Your task to perform on an android device: create a new album in the google photos Image 0: 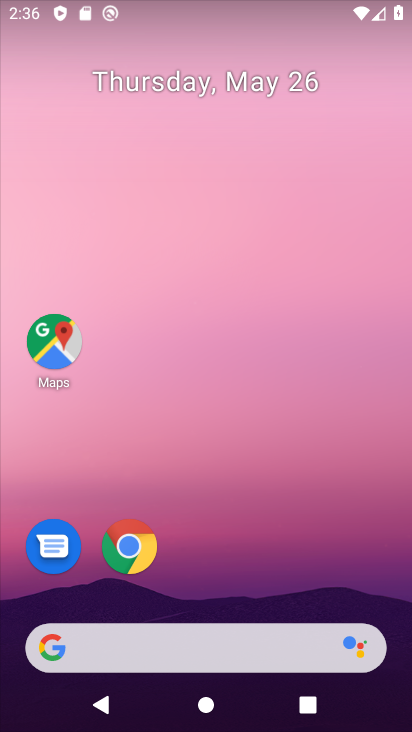
Step 0: drag from (317, 554) to (211, 14)
Your task to perform on an android device: create a new album in the google photos Image 1: 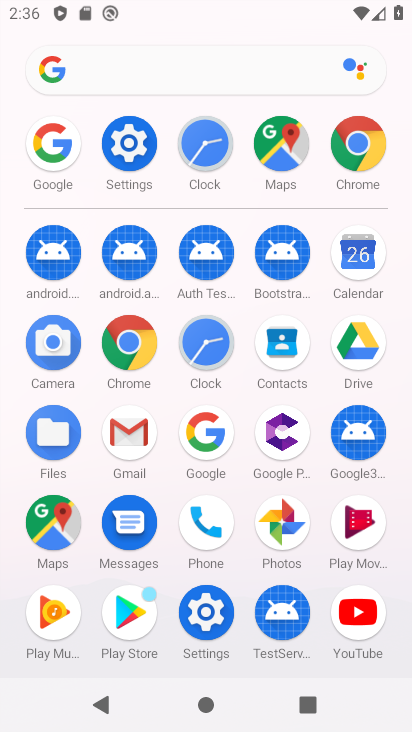
Step 1: click (282, 523)
Your task to perform on an android device: create a new album in the google photos Image 2: 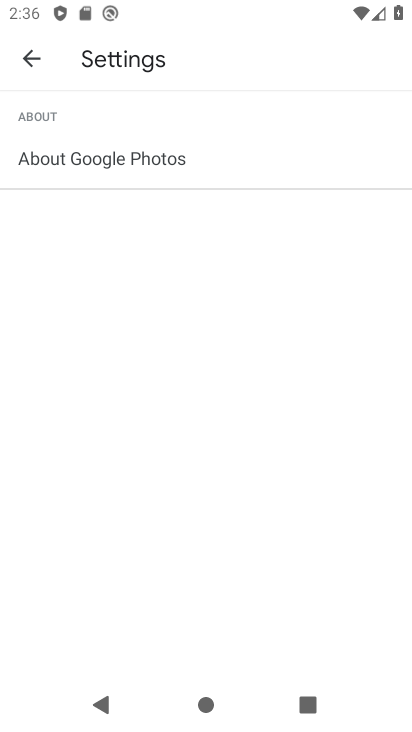
Step 2: click (25, 66)
Your task to perform on an android device: create a new album in the google photos Image 3: 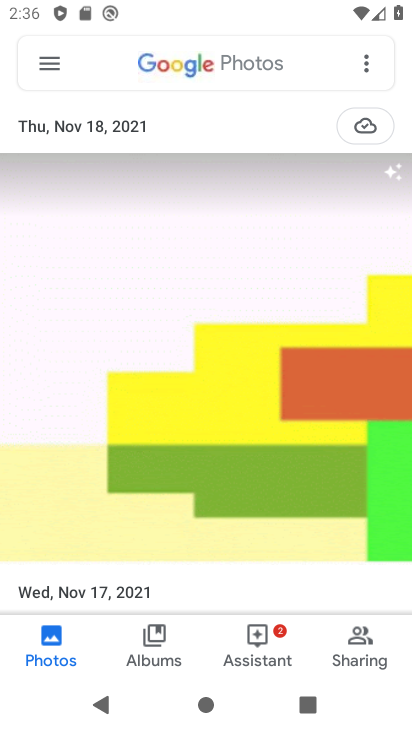
Step 3: click (154, 645)
Your task to perform on an android device: create a new album in the google photos Image 4: 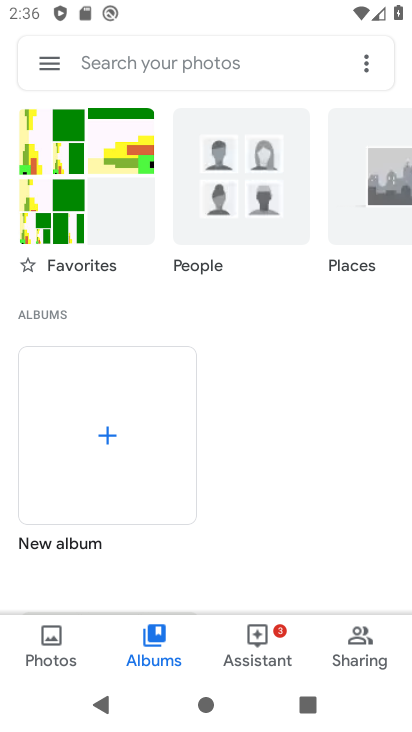
Step 4: click (130, 428)
Your task to perform on an android device: create a new album in the google photos Image 5: 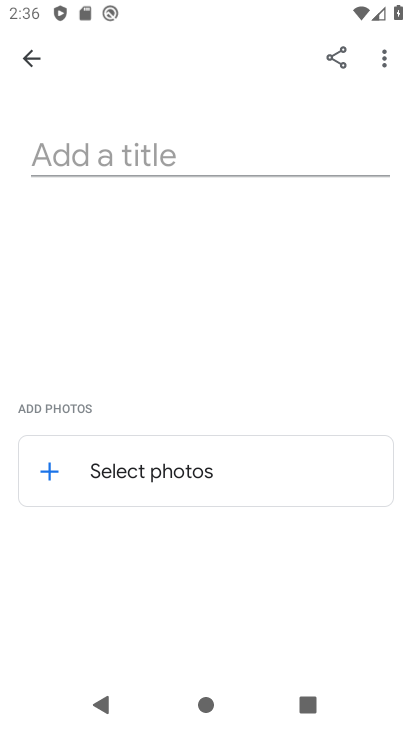
Step 5: click (156, 154)
Your task to perform on an android device: create a new album in the google photos Image 6: 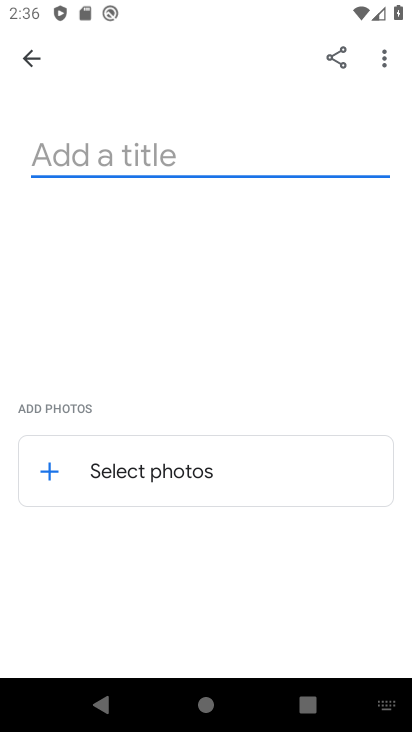
Step 6: type "hjgjnhv"
Your task to perform on an android device: create a new album in the google photos Image 7: 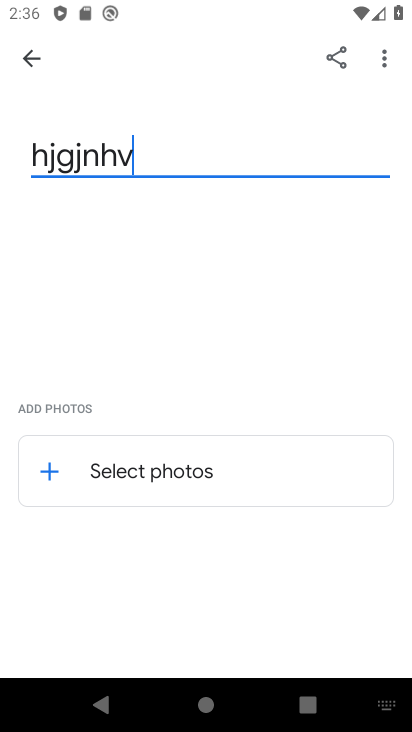
Step 7: type ""
Your task to perform on an android device: create a new album in the google photos Image 8: 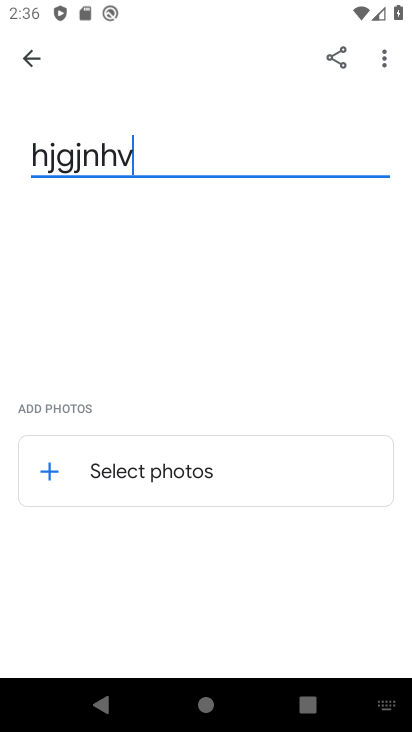
Step 8: click (186, 472)
Your task to perform on an android device: create a new album in the google photos Image 9: 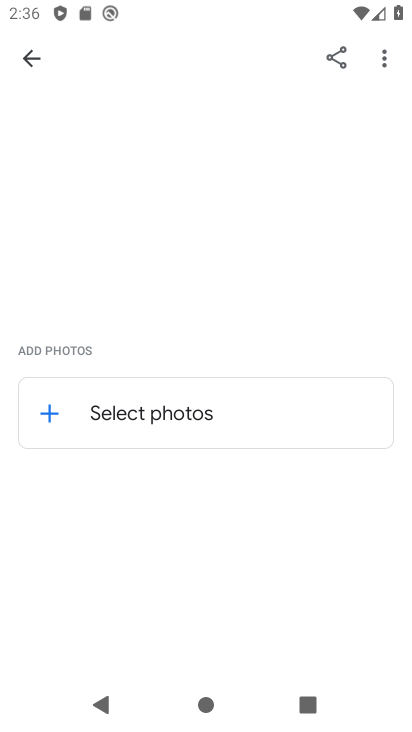
Step 9: click (152, 418)
Your task to perform on an android device: create a new album in the google photos Image 10: 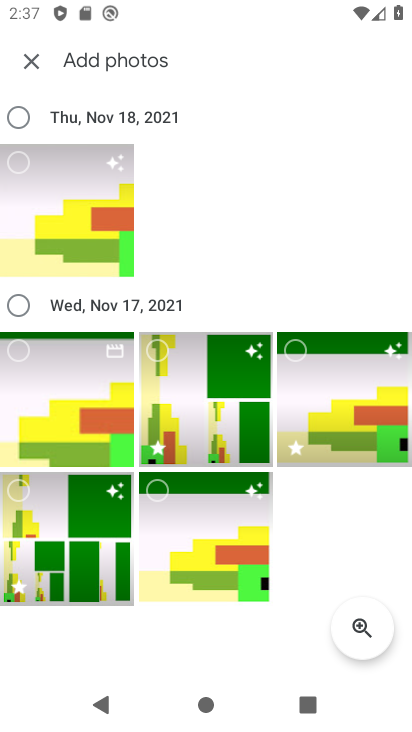
Step 10: click (86, 229)
Your task to perform on an android device: create a new album in the google photos Image 11: 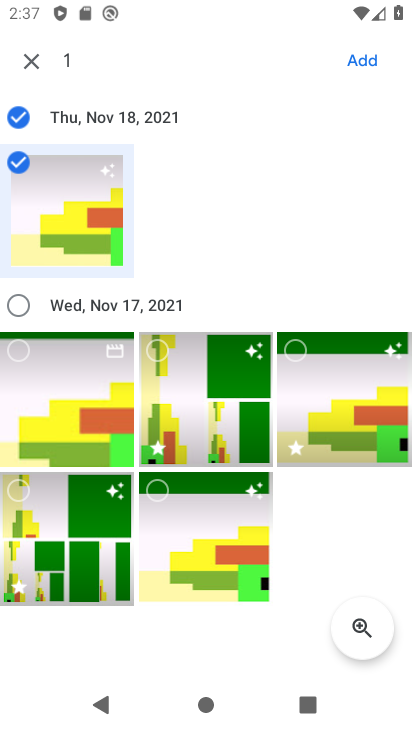
Step 11: click (82, 414)
Your task to perform on an android device: create a new album in the google photos Image 12: 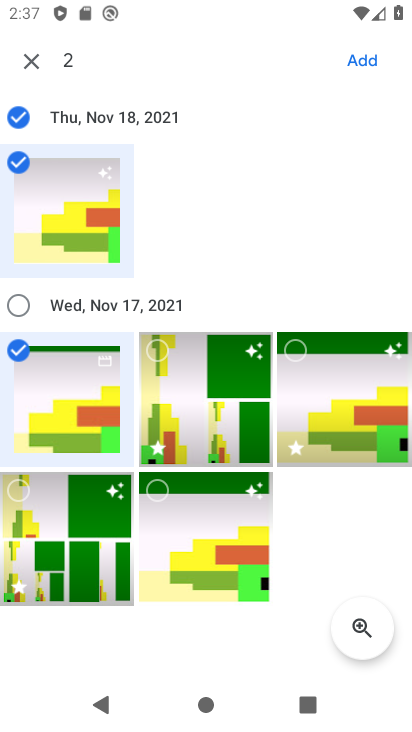
Step 12: click (366, 57)
Your task to perform on an android device: create a new album in the google photos Image 13: 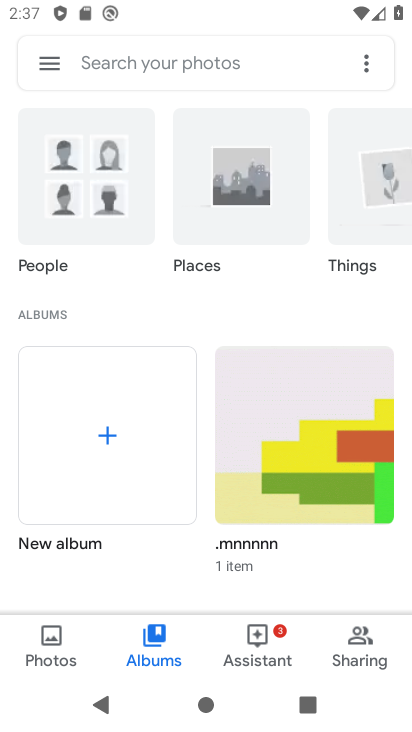
Step 13: task complete